Your task to perform on an android device: check storage Image 0: 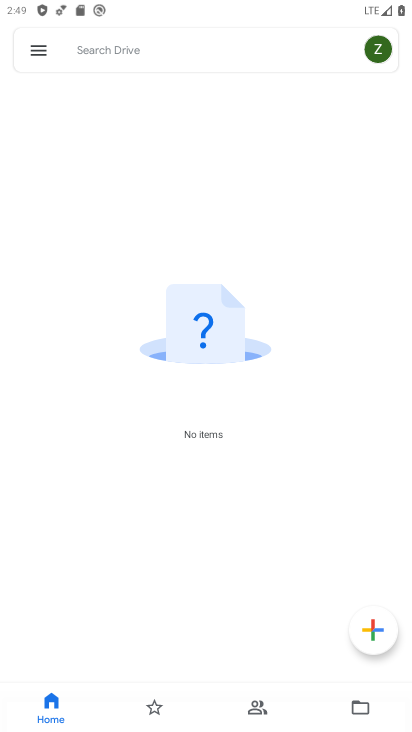
Step 0: press home button
Your task to perform on an android device: check storage Image 1: 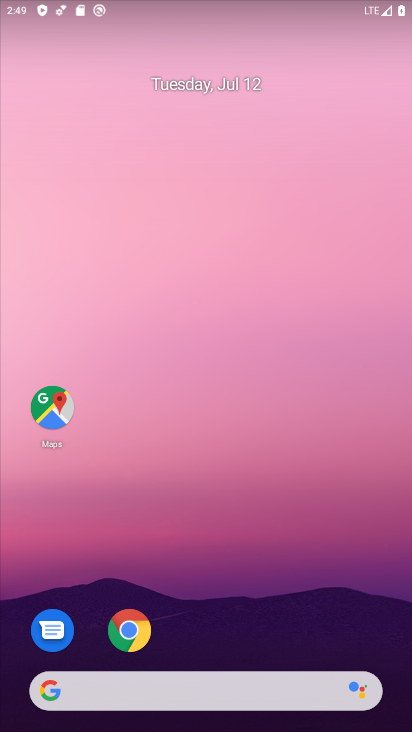
Step 1: drag from (246, 653) to (410, 21)
Your task to perform on an android device: check storage Image 2: 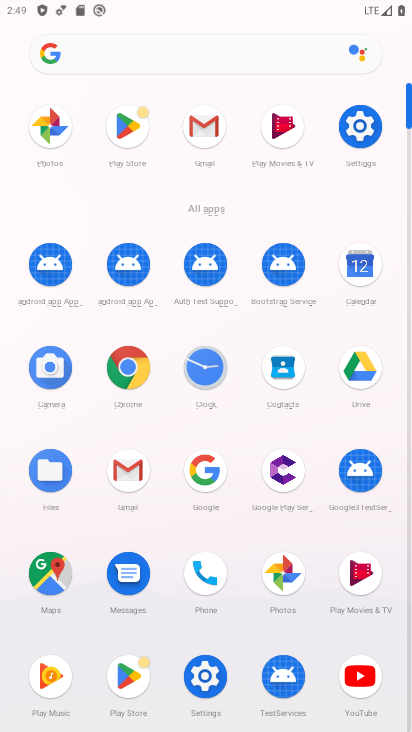
Step 2: click (200, 680)
Your task to perform on an android device: check storage Image 3: 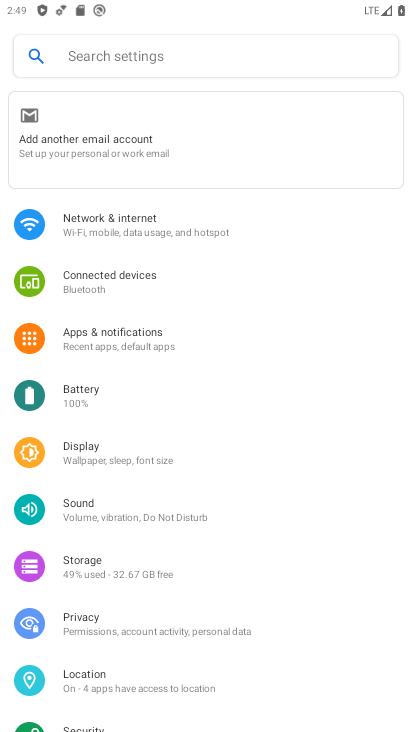
Step 3: click (104, 572)
Your task to perform on an android device: check storage Image 4: 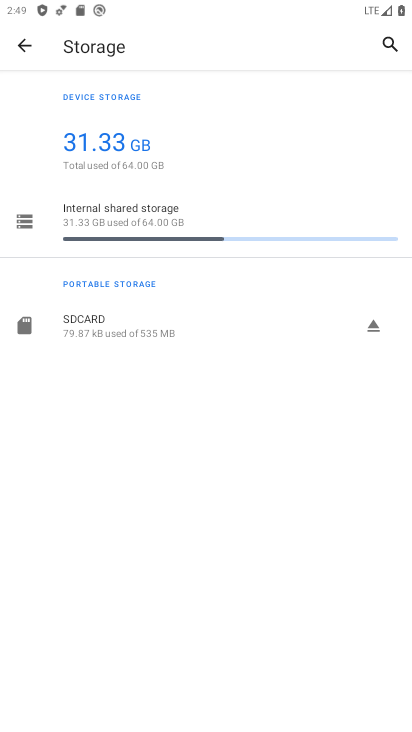
Step 4: click (145, 215)
Your task to perform on an android device: check storage Image 5: 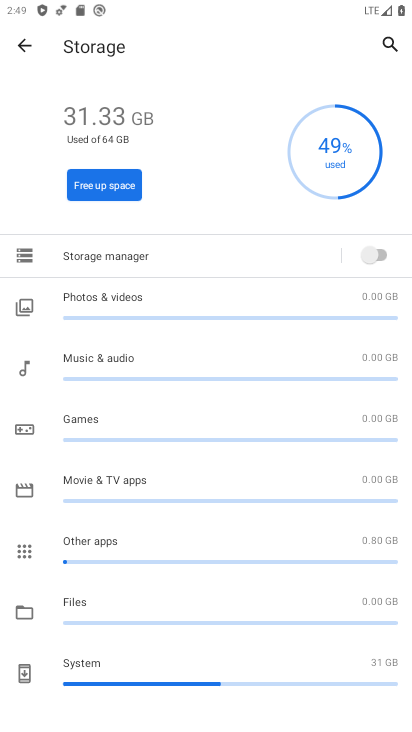
Step 5: task complete